Your task to perform on an android device: show emergency info Image 0: 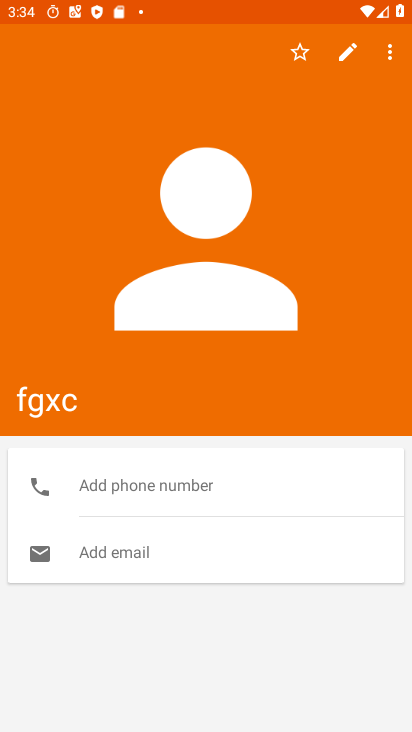
Step 0: press home button
Your task to perform on an android device: show emergency info Image 1: 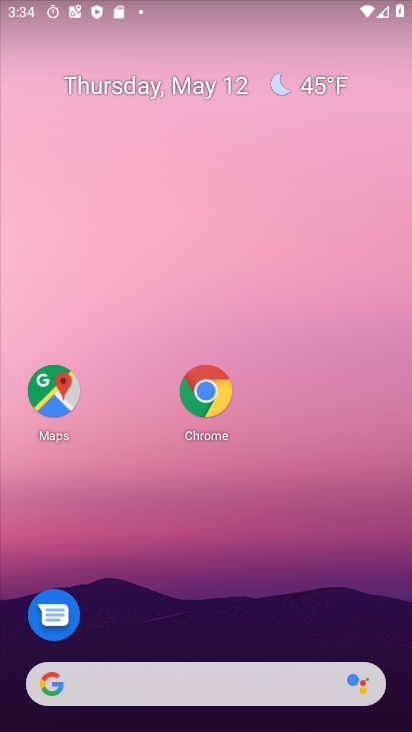
Step 1: drag from (206, 614) to (158, 93)
Your task to perform on an android device: show emergency info Image 2: 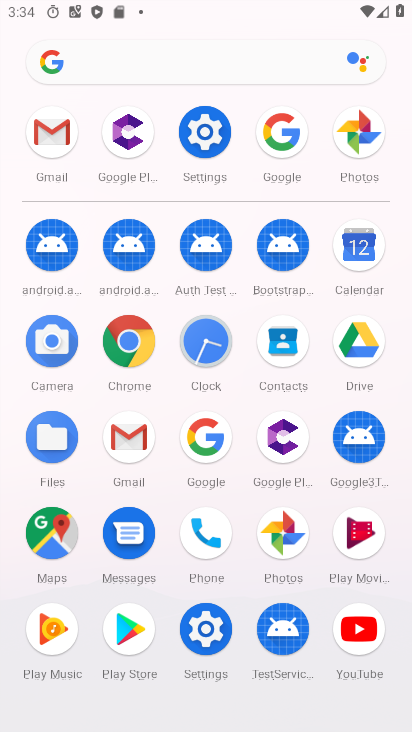
Step 2: click (199, 138)
Your task to perform on an android device: show emergency info Image 3: 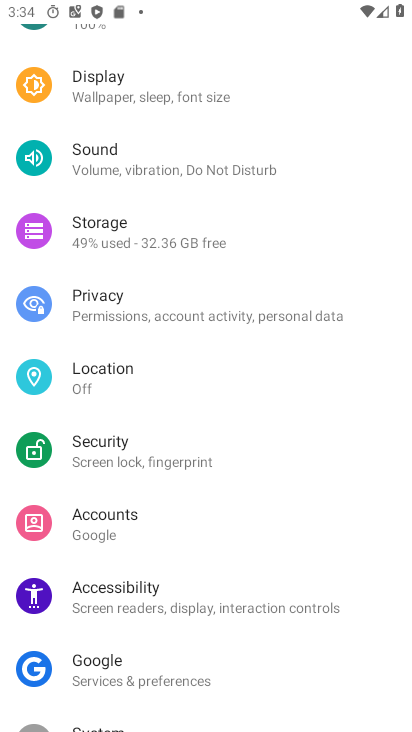
Step 3: drag from (209, 624) to (166, 157)
Your task to perform on an android device: show emergency info Image 4: 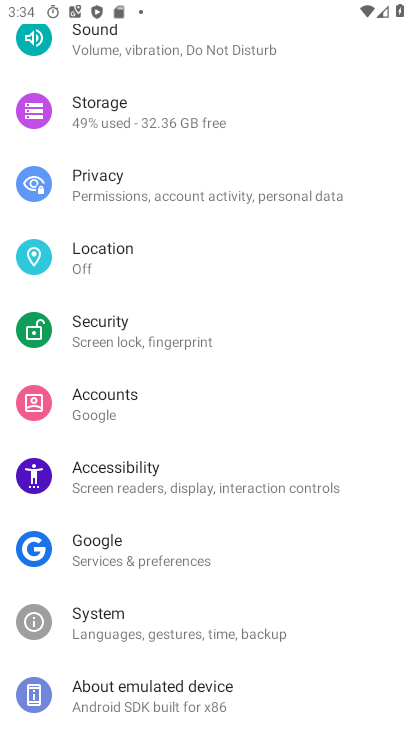
Step 4: click (145, 677)
Your task to perform on an android device: show emergency info Image 5: 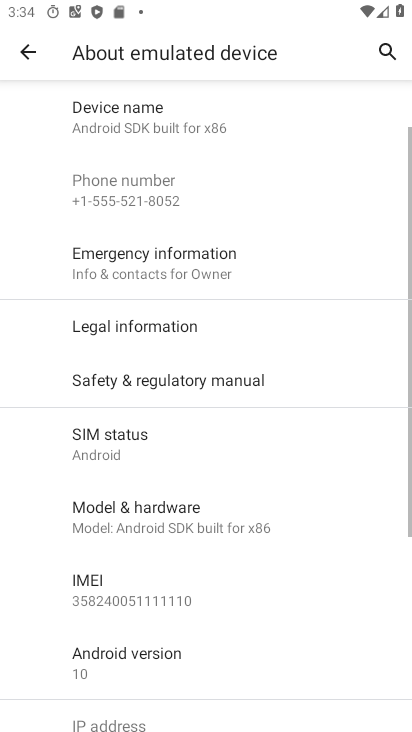
Step 5: click (153, 268)
Your task to perform on an android device: show emergency info Image 6: 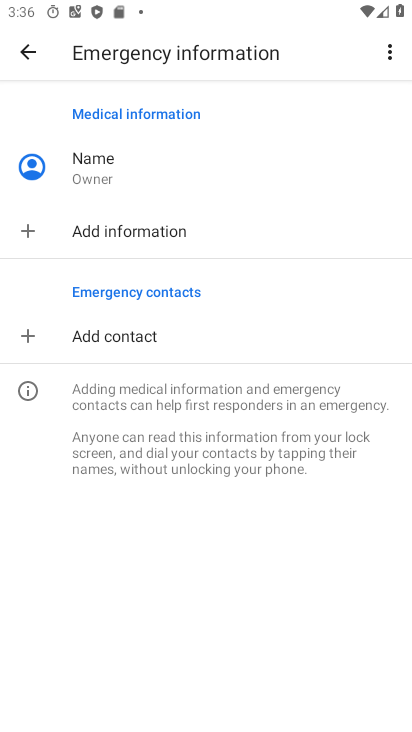
Step 6: task complete